Your task to perform on an android device: change keyboard looks Image 0: 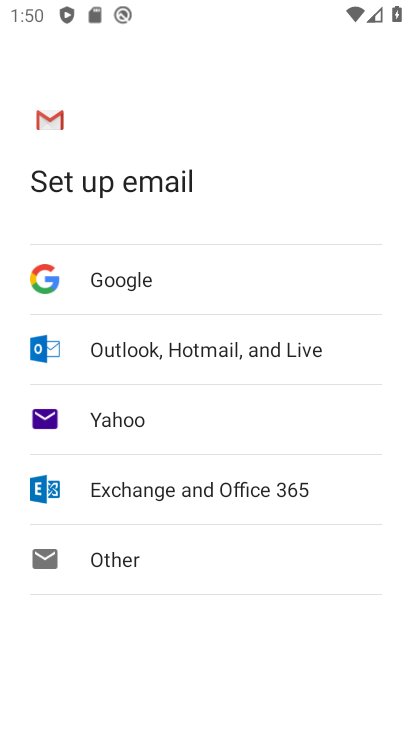
Step 0: press home button
Your task to perform on an android device: change keyboard looks Image 1: 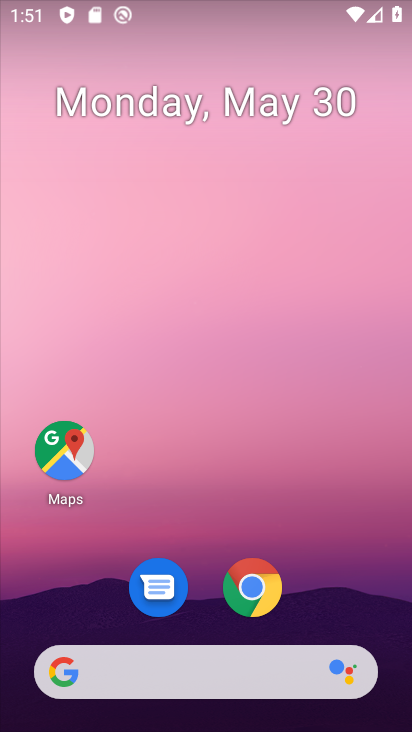
Step 1: drag from (137, 729) to (196, 159)
Your task to perform on an android device: change keyboard looks Image 2: 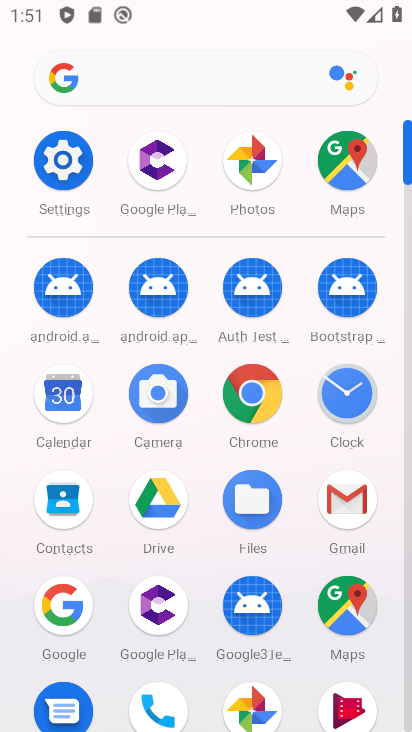
Step 2: drag from (201, 627) to (227, 248)
Your task to perform on an android device: change keyboard looks Image 3: 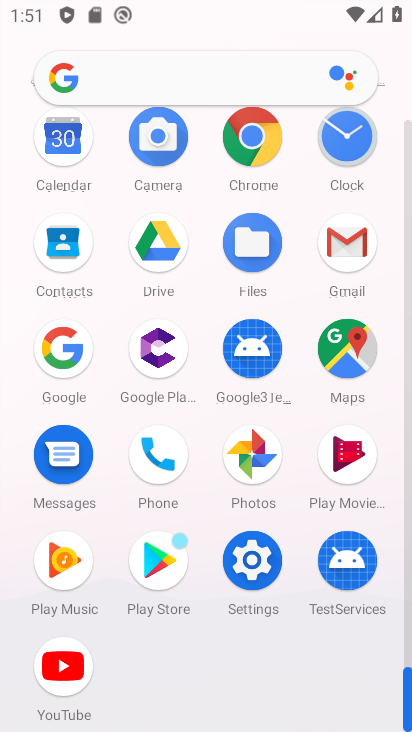
Step 3: click (235, 554)
Your task to perform on an android device: change keyboard looks Image 4: 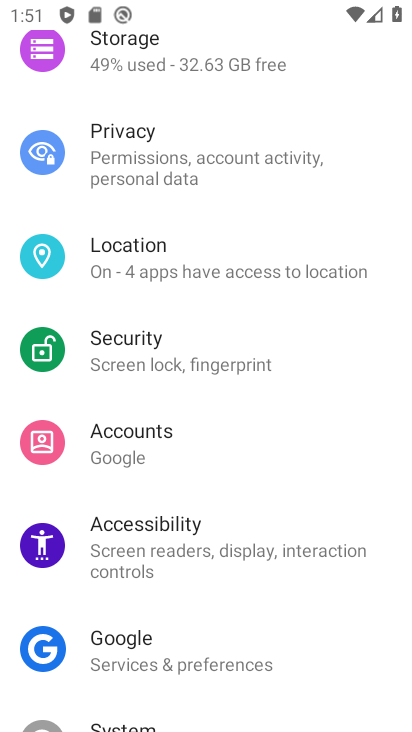
Step 4: drag from (210, 93) to (196, 187)
Your task to perform on an android device: change keyboard looks Image 5: 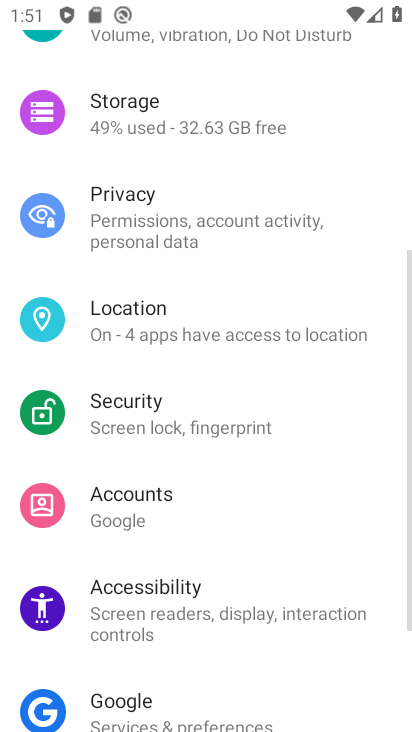
Step 5: drag from (227, 654) to (240, 302)
Your task to perform on an android device: change keyboard looks Image 6: 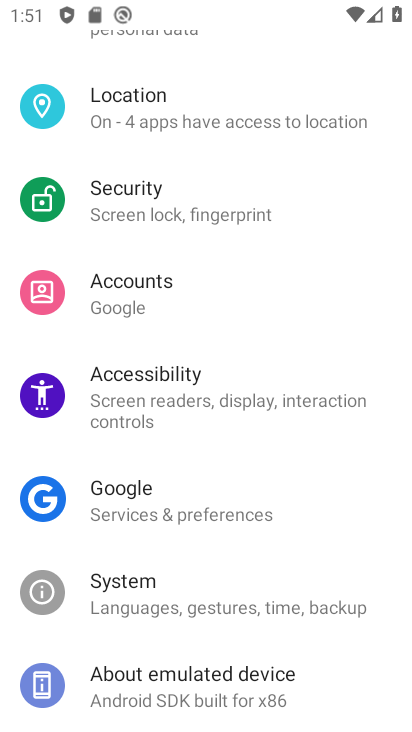
Step 6: click (196, 601)
Your task to perform on an android device: change keyboard looks Image 7: 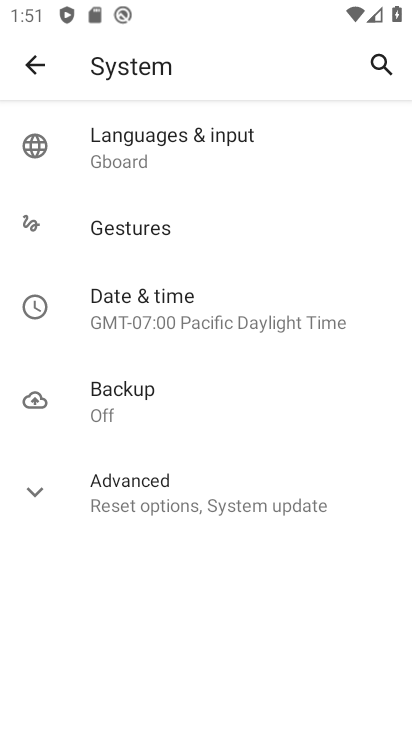
Step 7: click (138, 163)
Your task to perform on an android device: change keyboard looks Image 8: 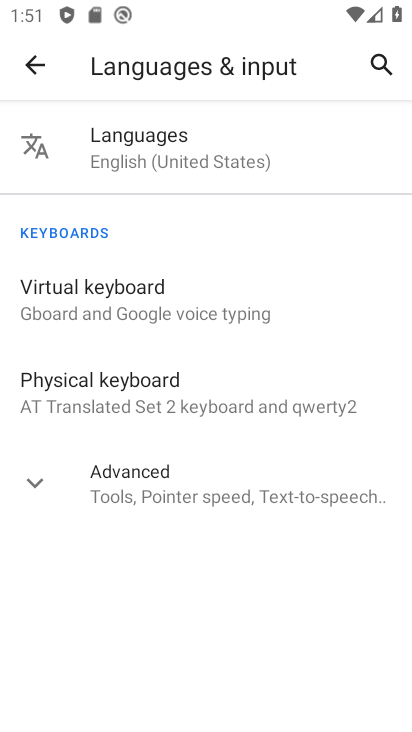
Step 8: click (171, 319)
Your task to perform on an android device: change keyboard looks Image 9: 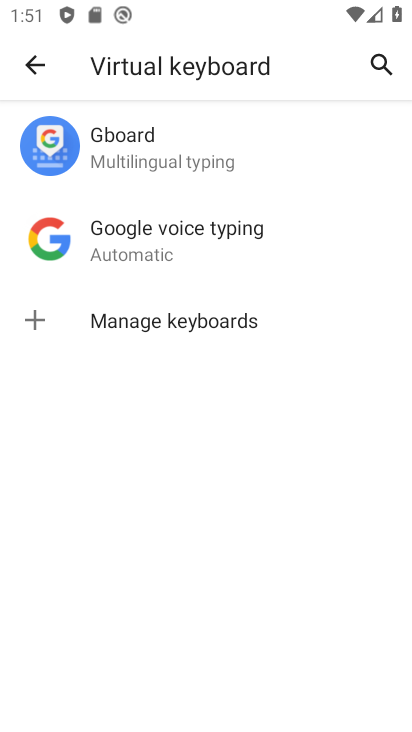
Step 9: click (173, 165)
Your task to perform on an android device: change keyboard looks Image 10: 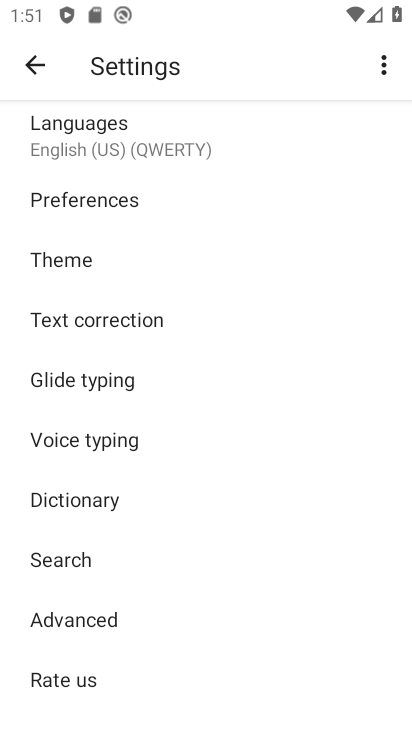
Step 10: click (79, 264)
Your task to perform on an android device: change keyboard looks Image 11: 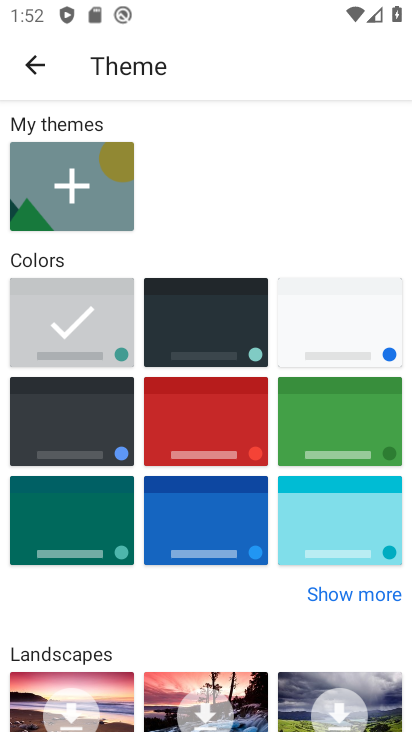
Step 11: click (177, 317)
Your task to perform on an android device: change keyboard looks Image 12: 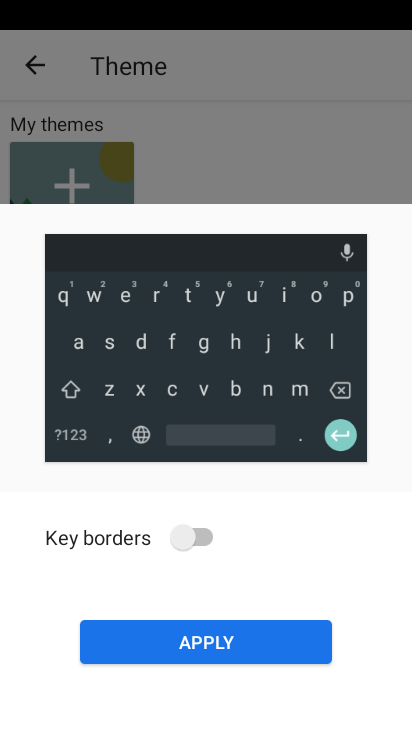
Step 12: click (271, 639)
Your task to perform on an android device: change keyboard looks Image 13: 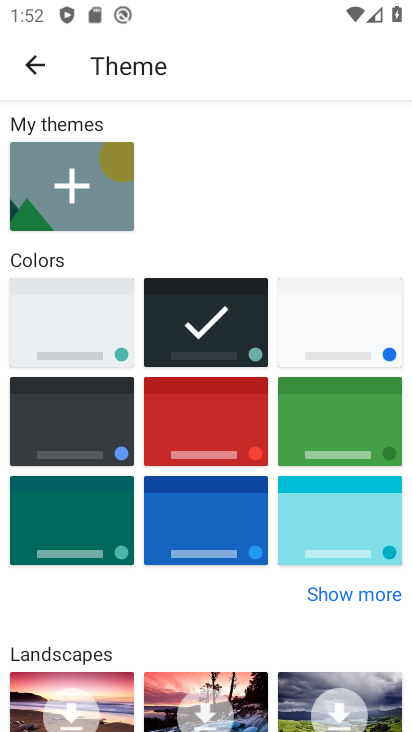
Step 13: task complete